Your task to perform on an android device: Open eBay Image 0: 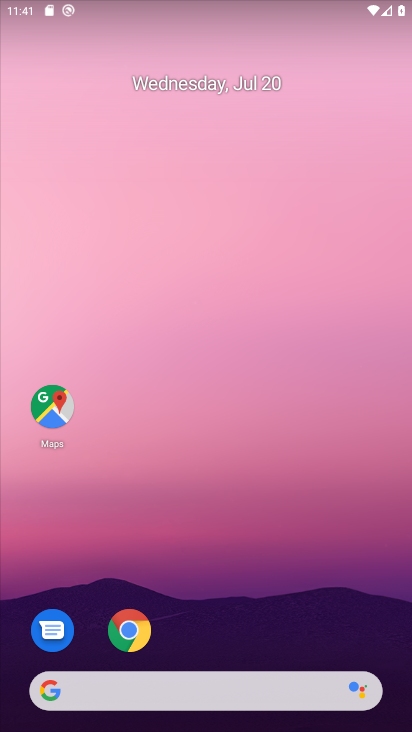
Step 0: drag from (211, 630) to (207, 65)
Your task to perform on an android device: Open eBay Image 1: 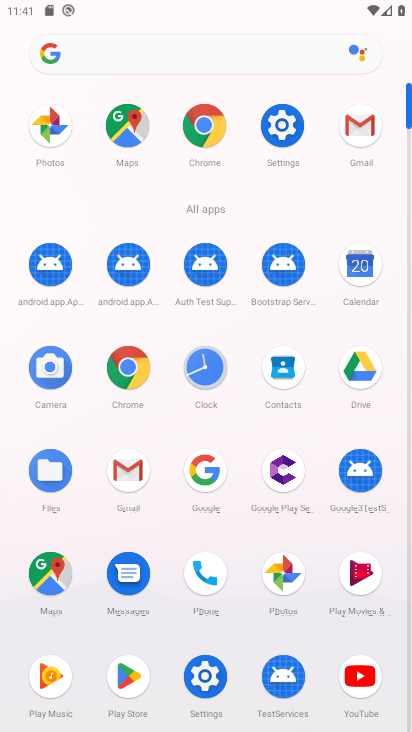
Step 1: click (199, 691)
Your task to perform on an android device: Open eBay Image 2: 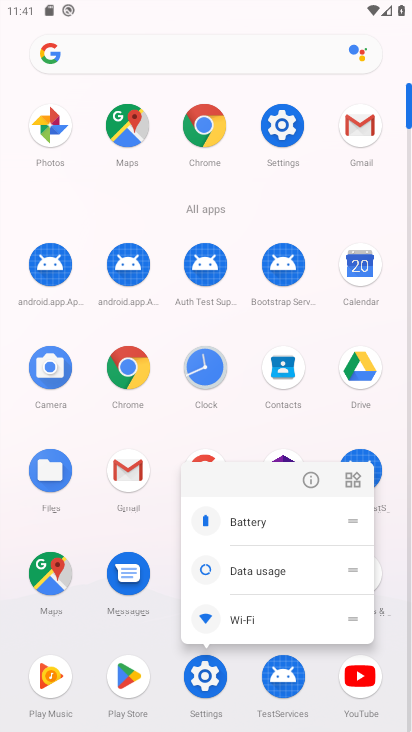
Step 2: click (137, 37)
Your task to perform on an android device: Open eBay Image 3: 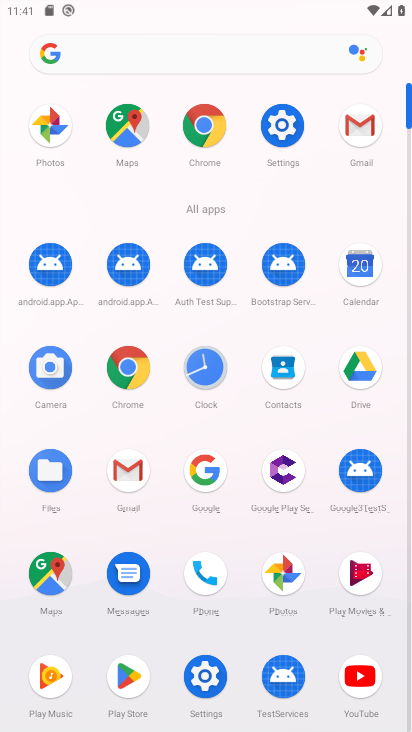
Step 3: click (74, 50)
Your task to perform on an android device: Open eBay Image 4: 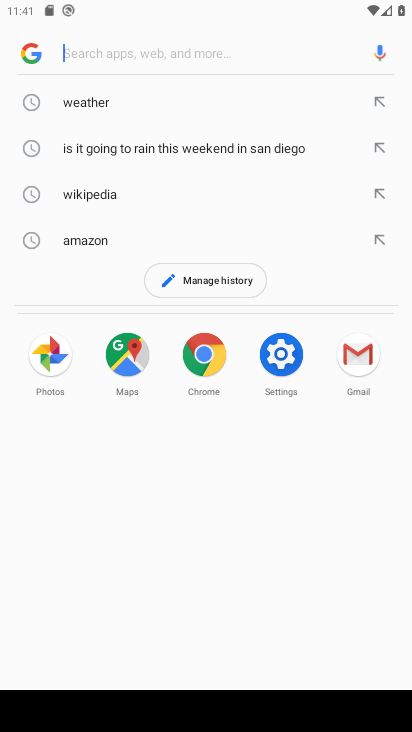
Step 4: type "eBay"
Your task to perform on an android device: Open eBay Image 5: 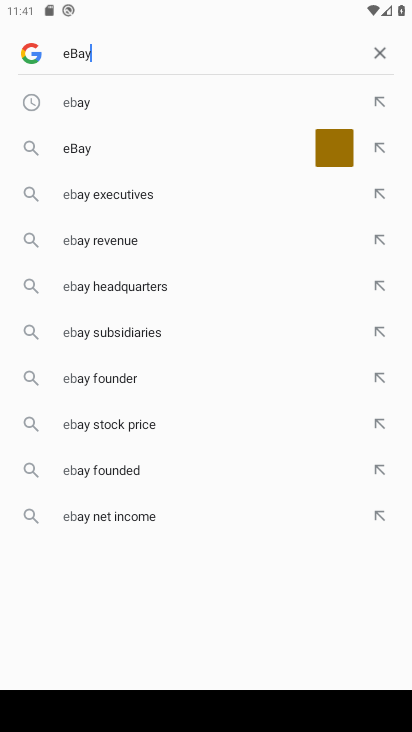
Step 5: type ""
Your task to perform on an android device: Open eBay Image 6: 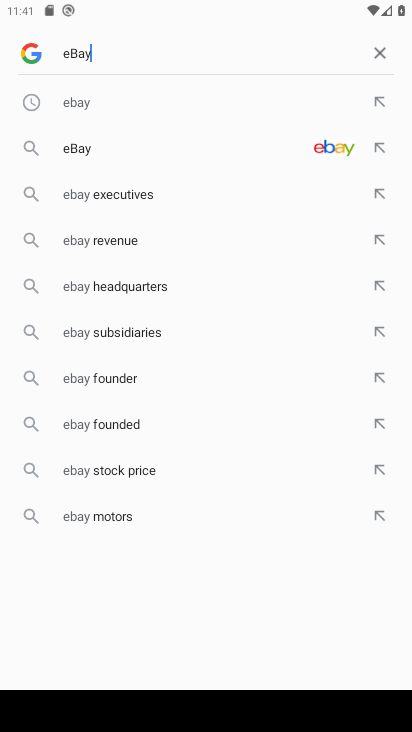
Step 6: click (72, 139)
Your task to perform on an android device: Open eBay Image 7: 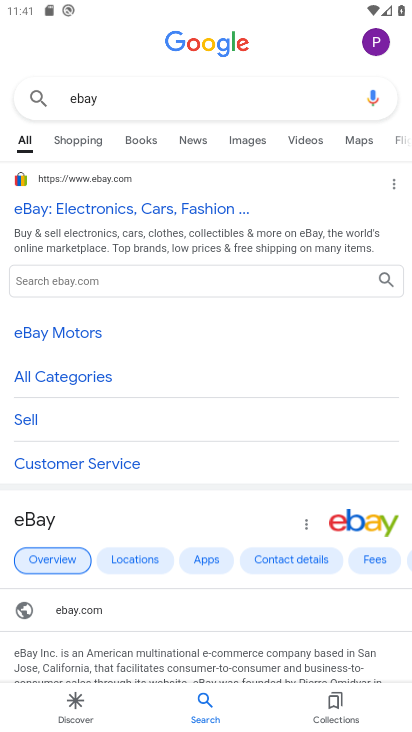
Step 7: click (82, 204)
Your task to perform on an android device: Open eBay Image 8: 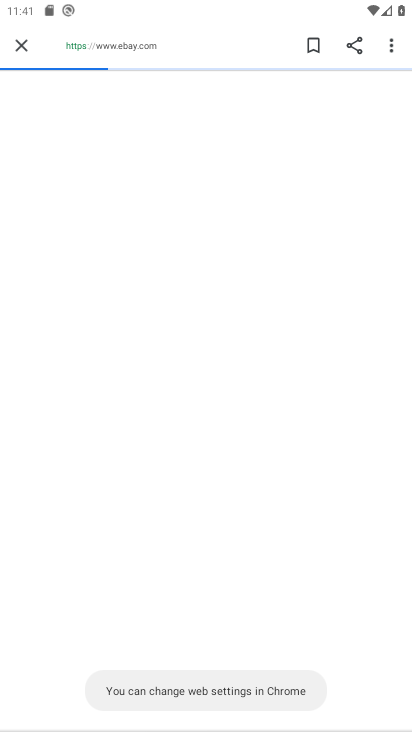
Step 8: task complete